Your task to perform on an android device: check android version Image 0: 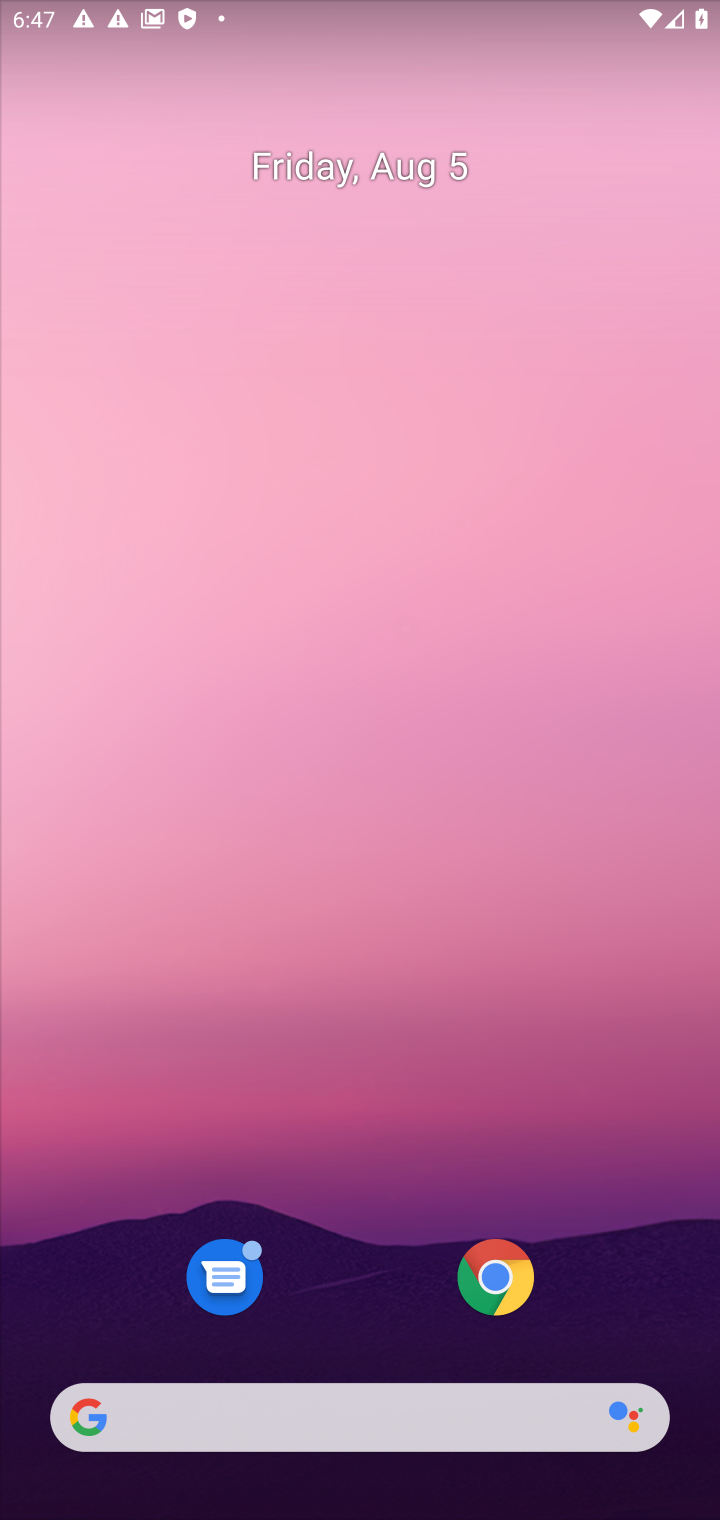
Step 0: drag from (365, 1249) to (375, 6)
Your task to perform on an android device: check android version Image 1: 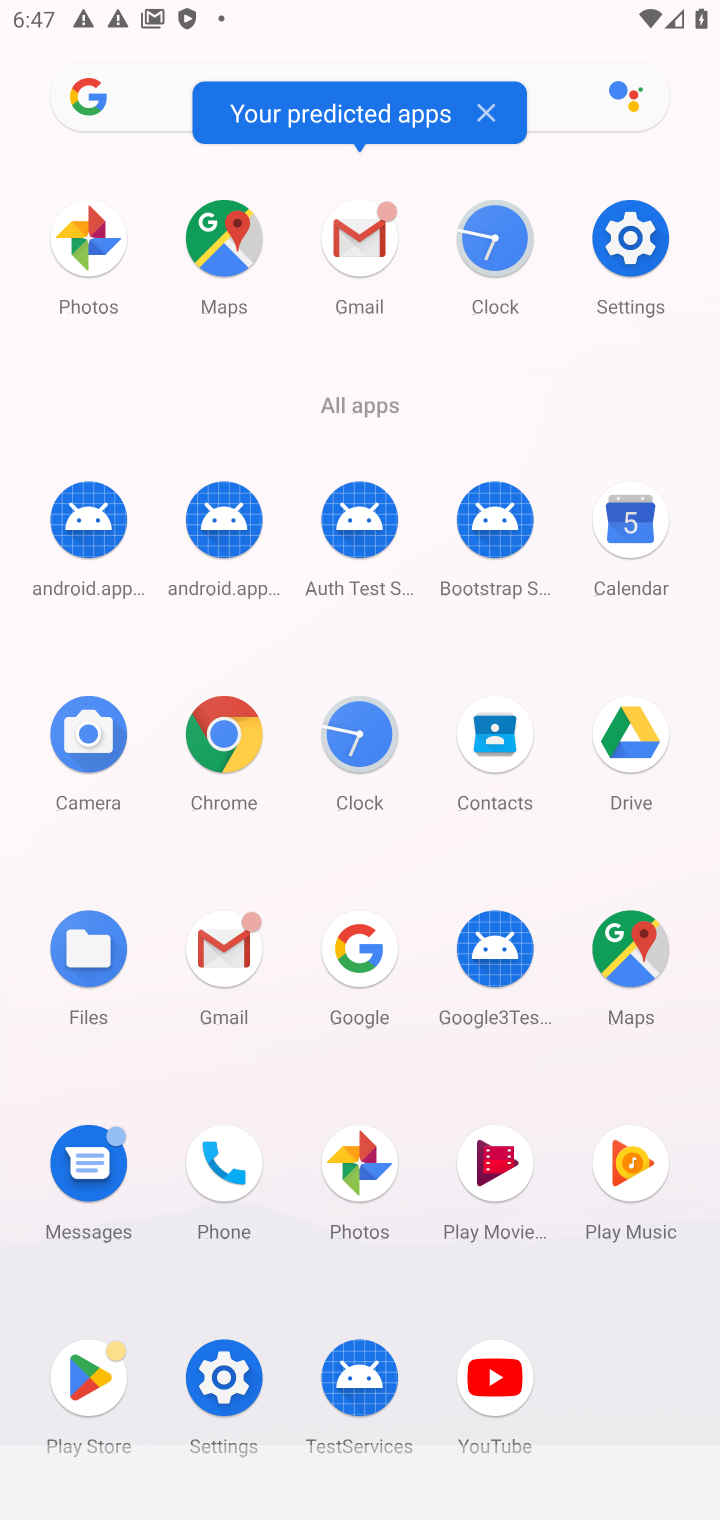
Step 1: click (641, 243)
Your task to perform on an android device: check android version Image 2: 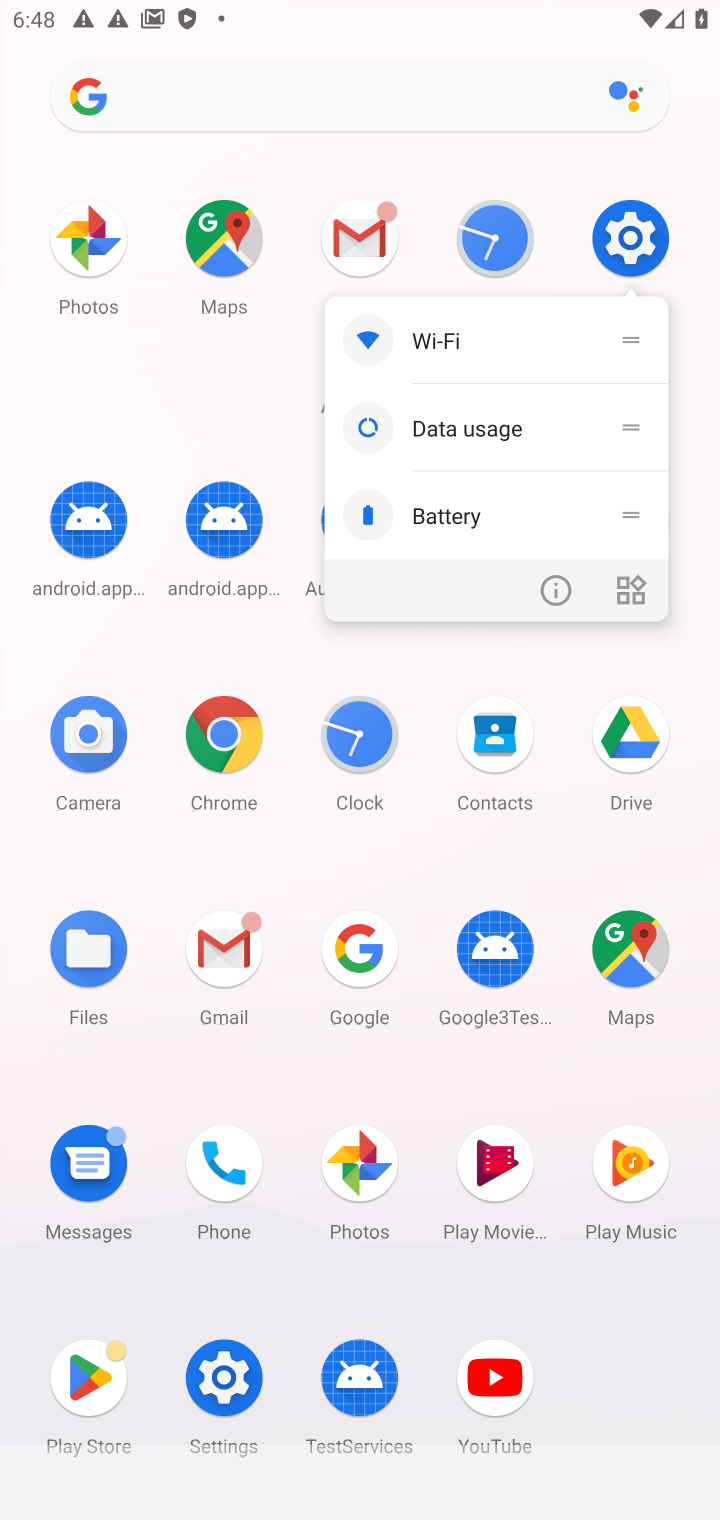
Step 2: click (641, 246)
Your task to perform on an android device: check android version Image 3: 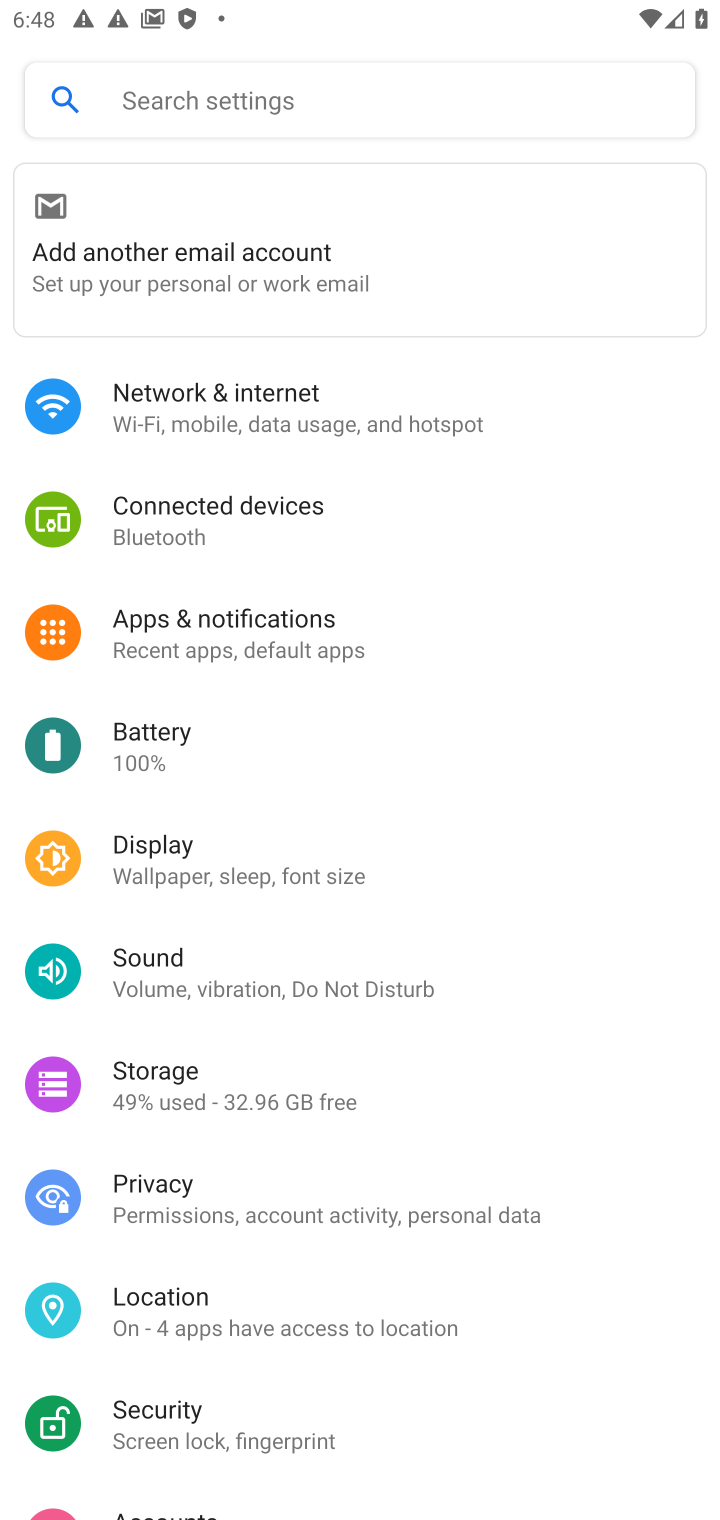
Step 3: drag from (398, 1330) to (334, 453)
Your task to perform on an android device: check android version Image 4: 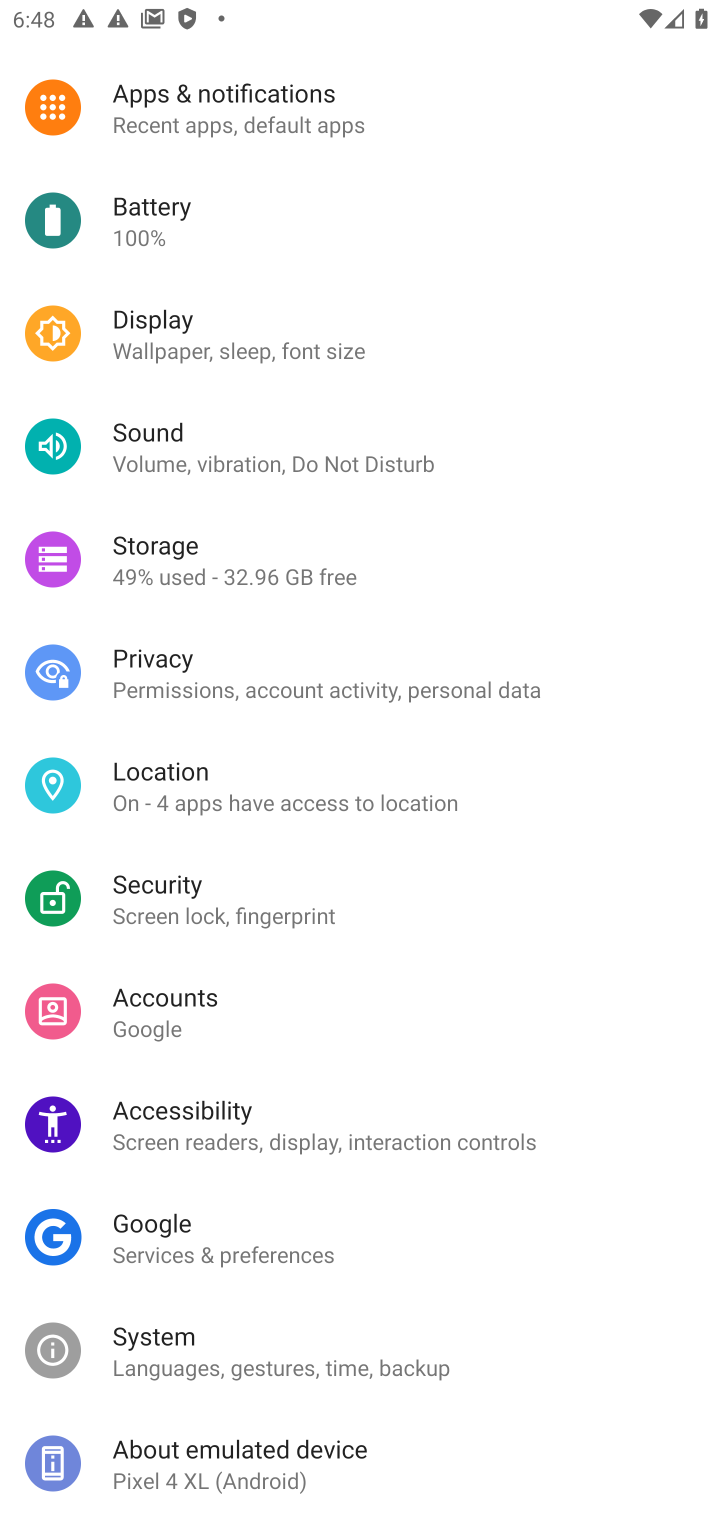
Step 4: click (255, 1463)
Your task to perform on an android device: check android version Image 5: 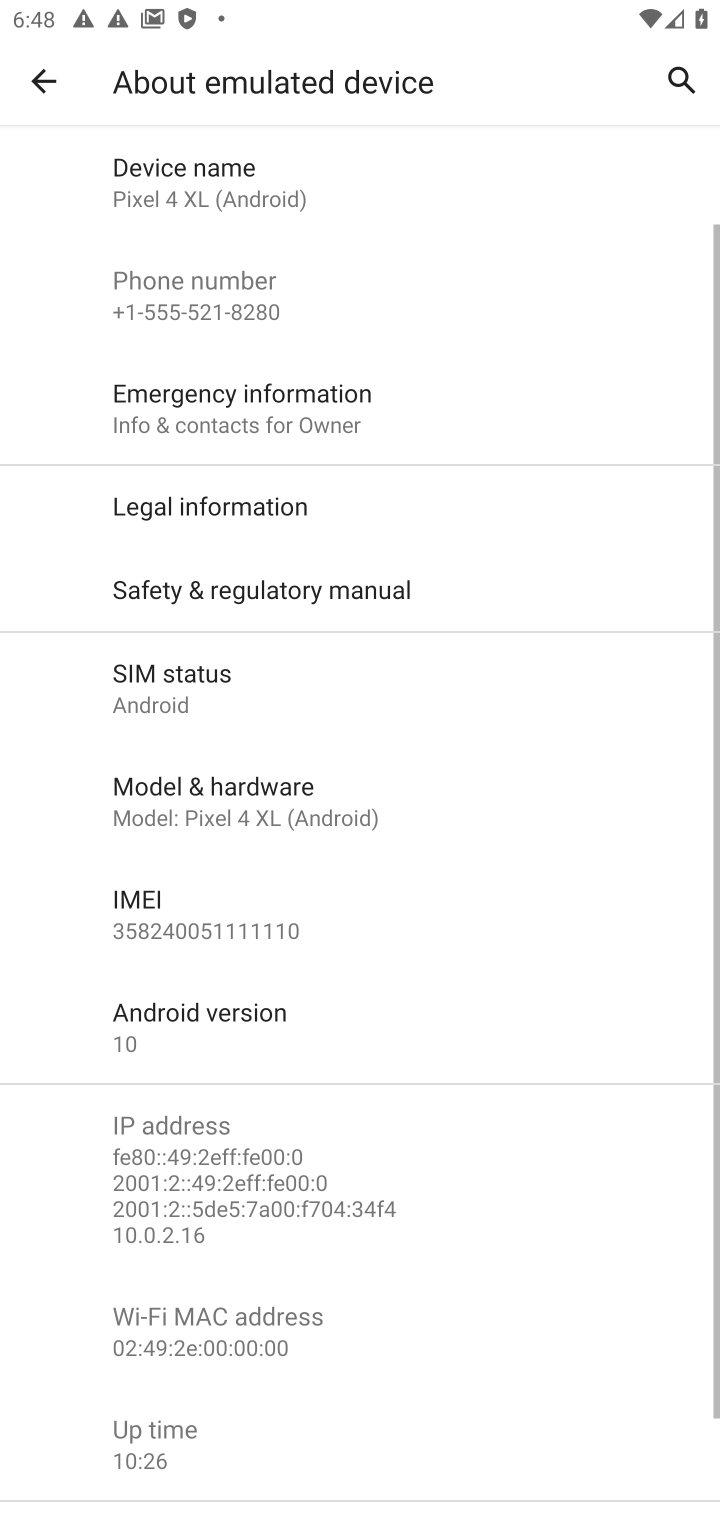
Step 5: click (325, 1028)
Your task to perform on an android device: check android version Image 6: 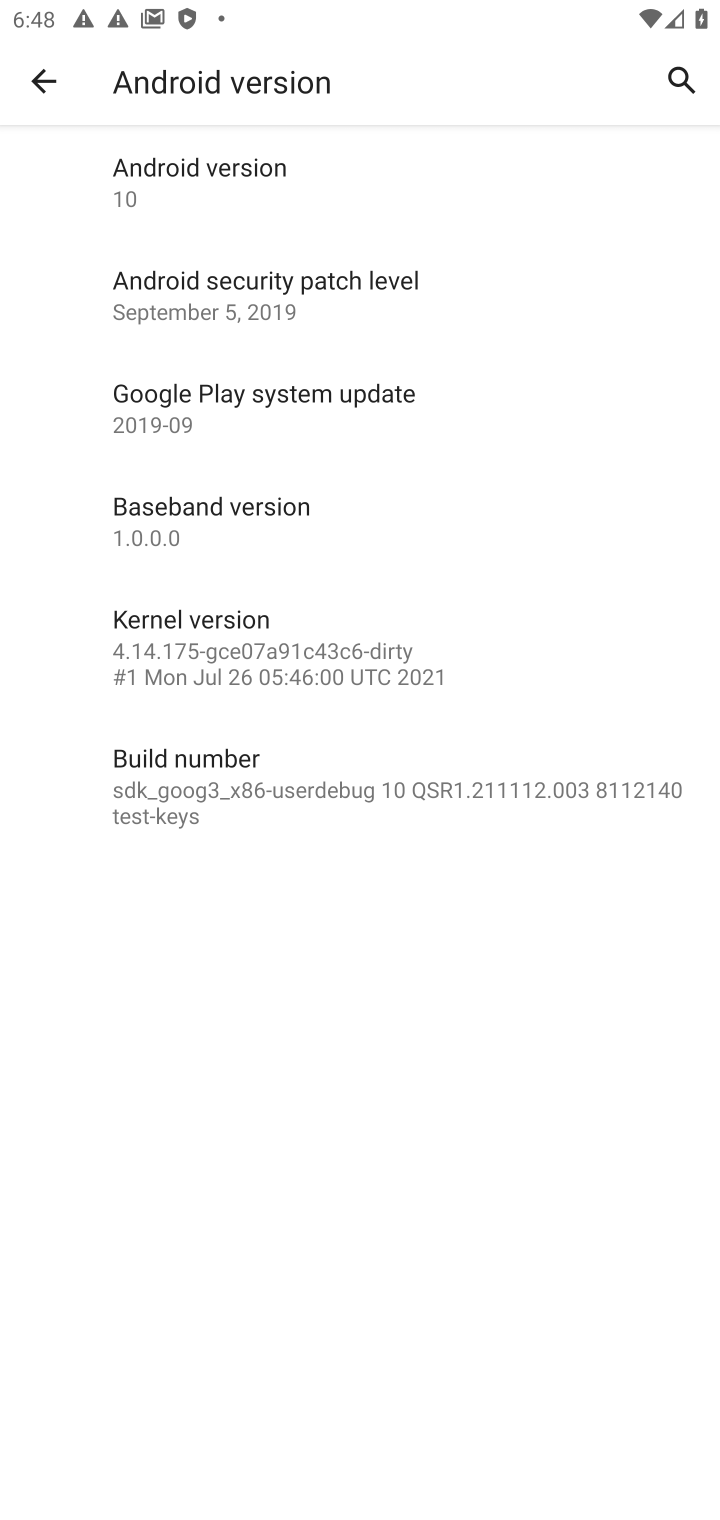
Step 6: task complete